Your task to perform on an android device: Open maps Image 0: 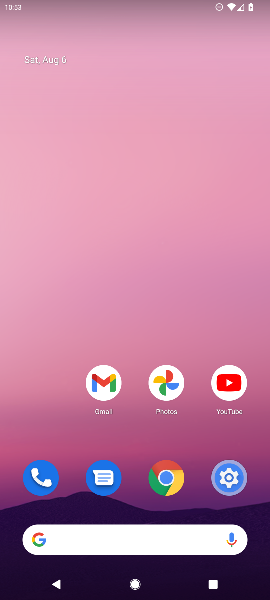
Step 0: drag from (150, 492) to (129, 251)
Your task to perform on an android device: Open maps Image 1: 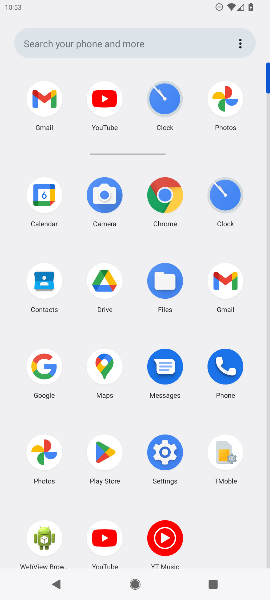
Step 1: click (100, 362)
Your task to perform on an android device: Open maps Image 2: 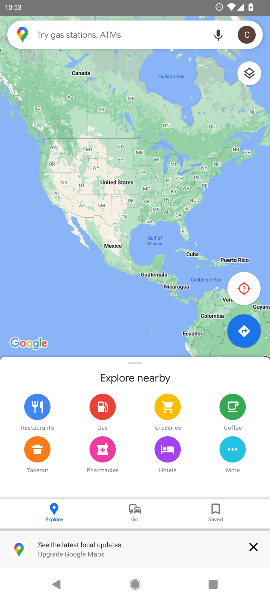
Step 2: task complete